Your task to perform on an android device: Search for the best fantasy books on Goodreads. Image 0: 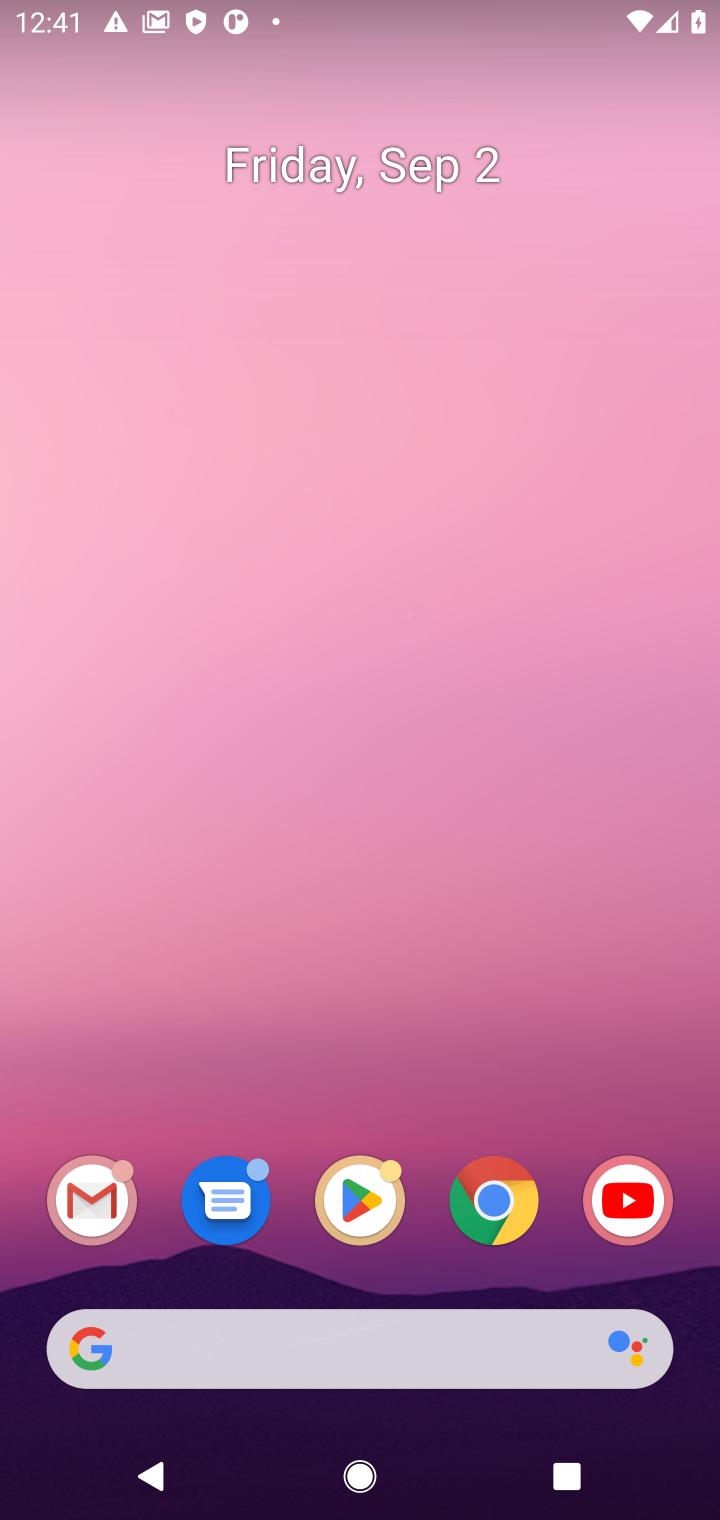
Step 0: click (480, 1201)
Your task to perform on an android device: Search for the best fantasy books on Goodreads. Image 1: 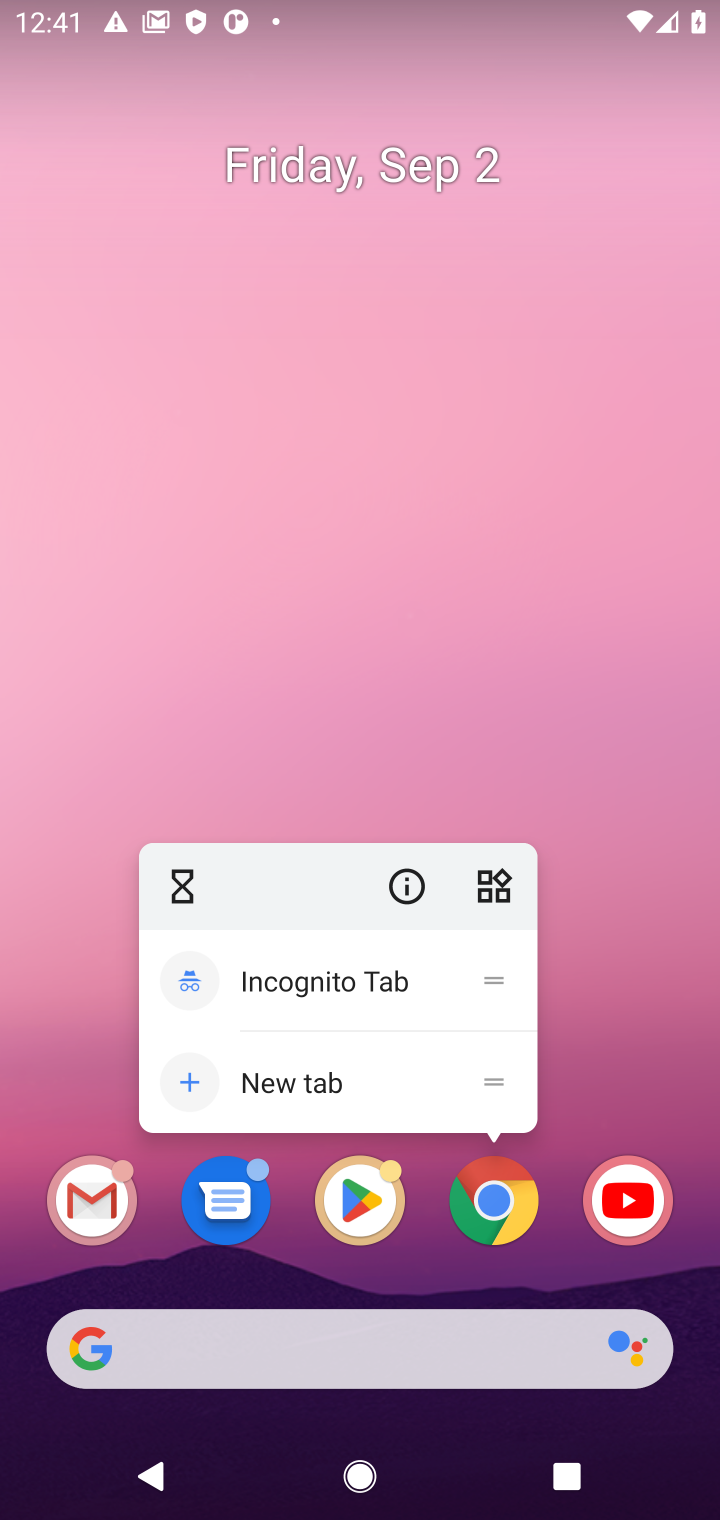
Step 1: click (480, 1201)
Your task to perform on an android device: Search for the best fantasy books on Goodreads. Image 2: 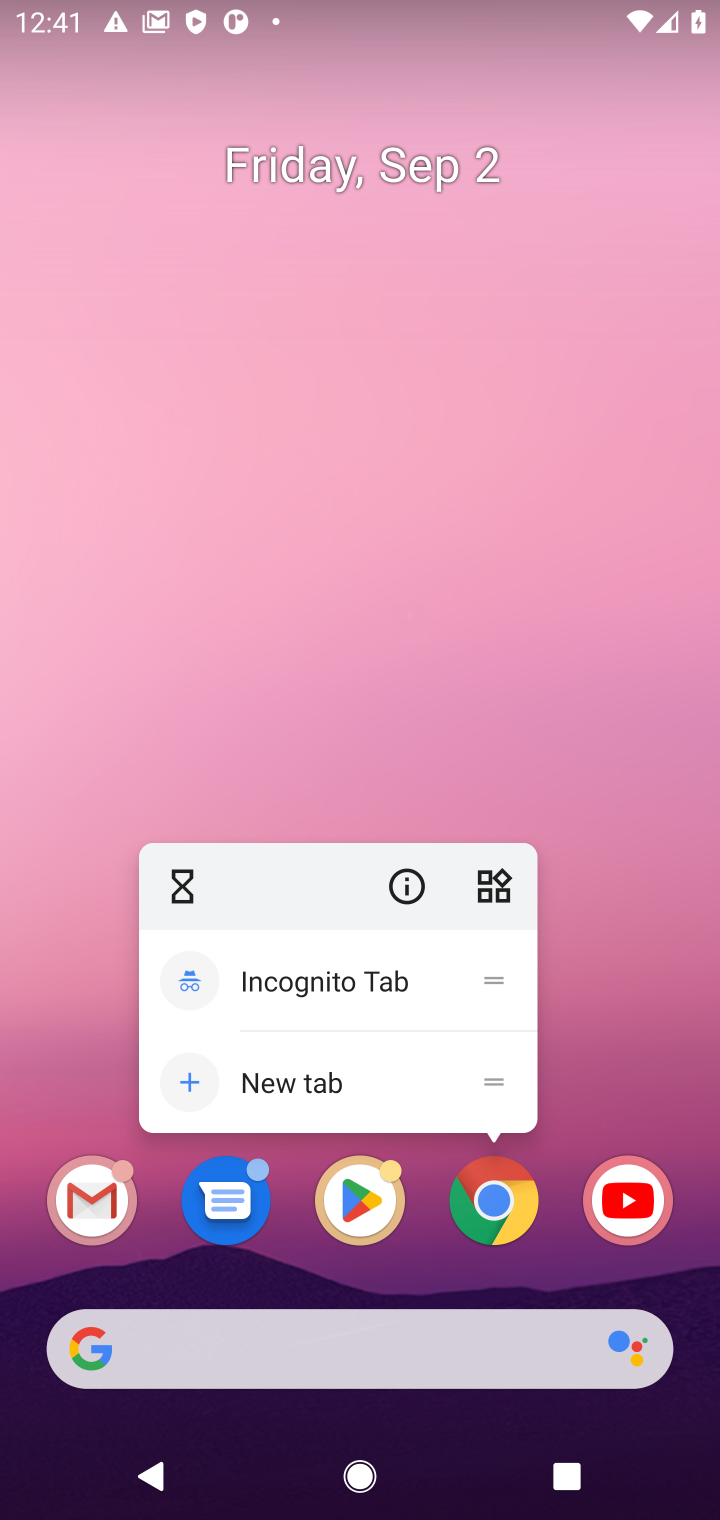
Step 2: click (509, 1206)
Your task to perform on an android device: Search for the best fantasy books on Goodreads. Image 3: 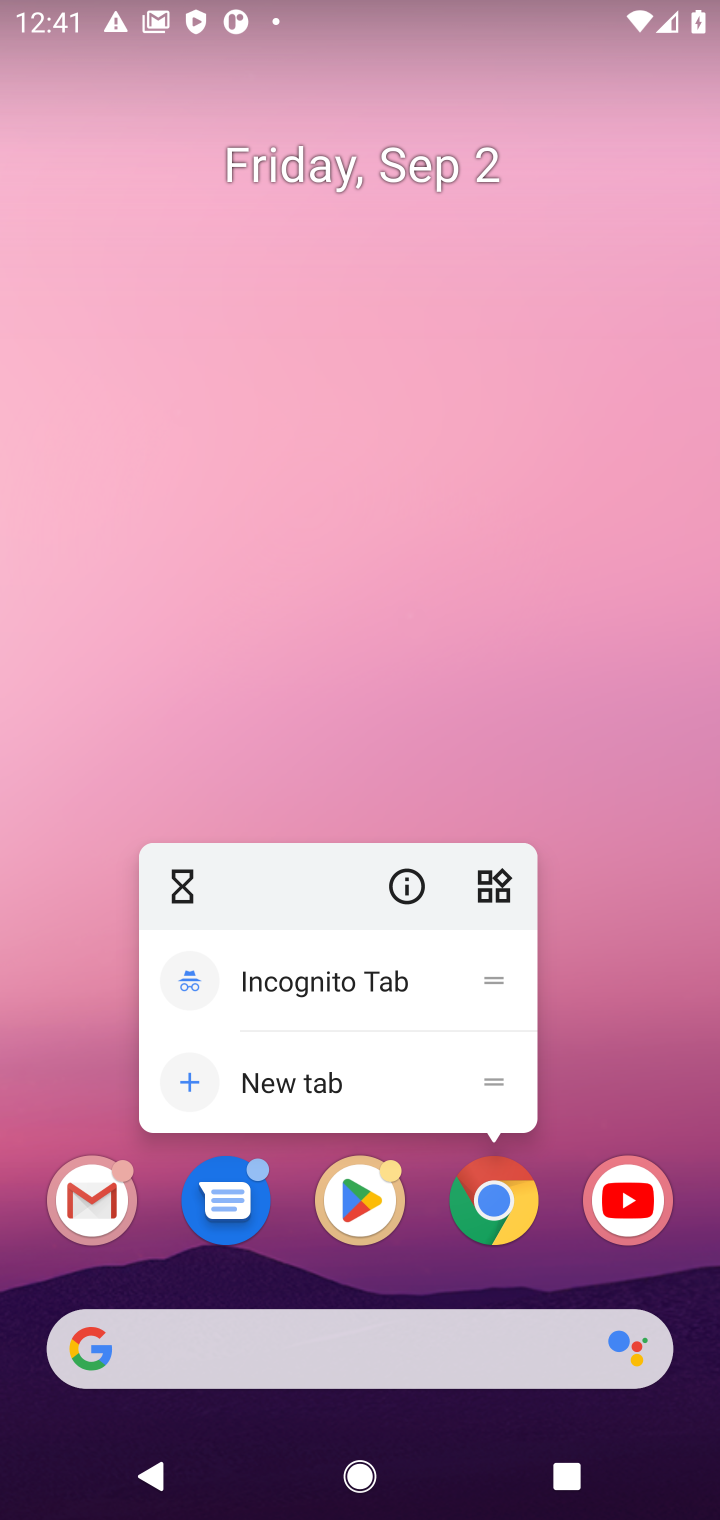
Step 3: click (489, 1196)
Your task to perform on an android device: Search for the best fantasy books on Goodreads. Image 4: 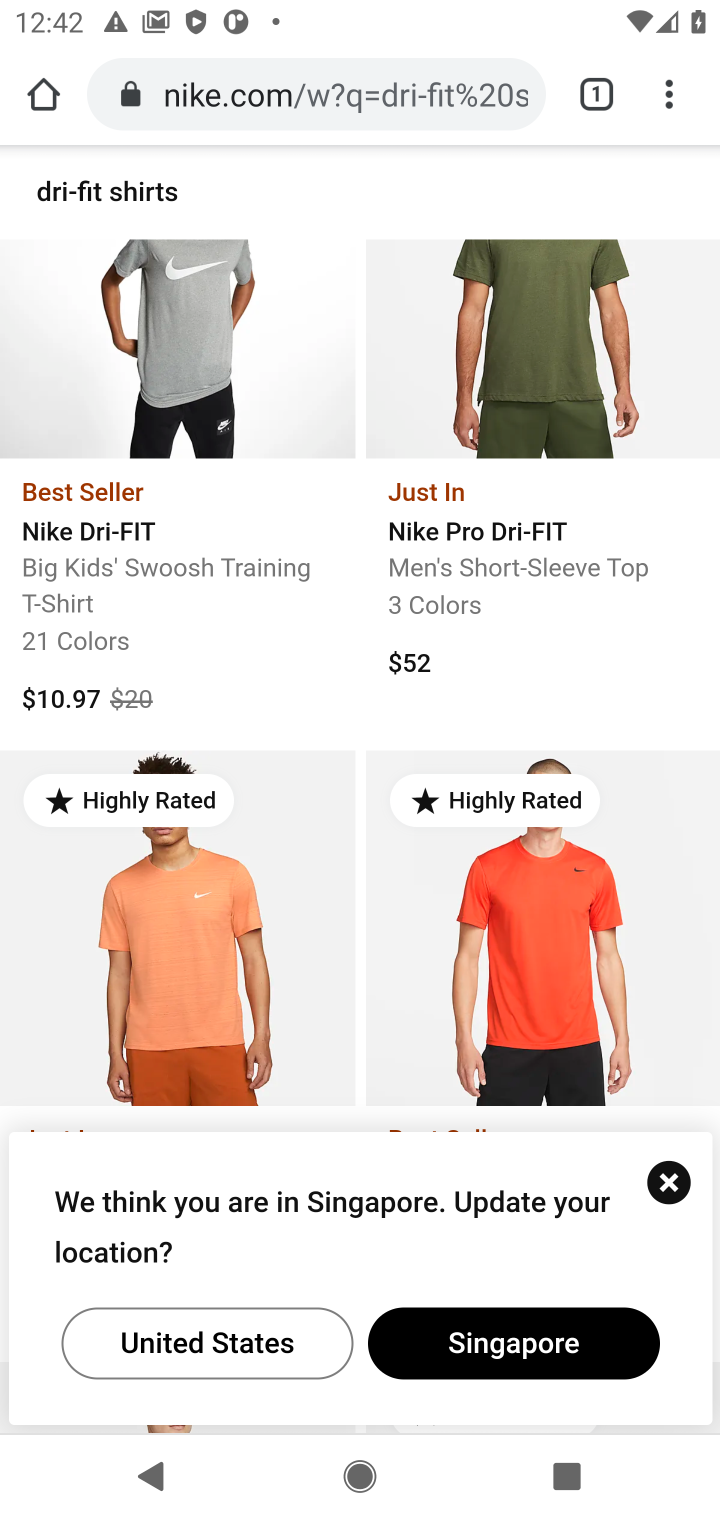
Step 4: click (440, 86)
Your task to perform on an android device: Search for the best fantasy books on Goodreads. Image 5: 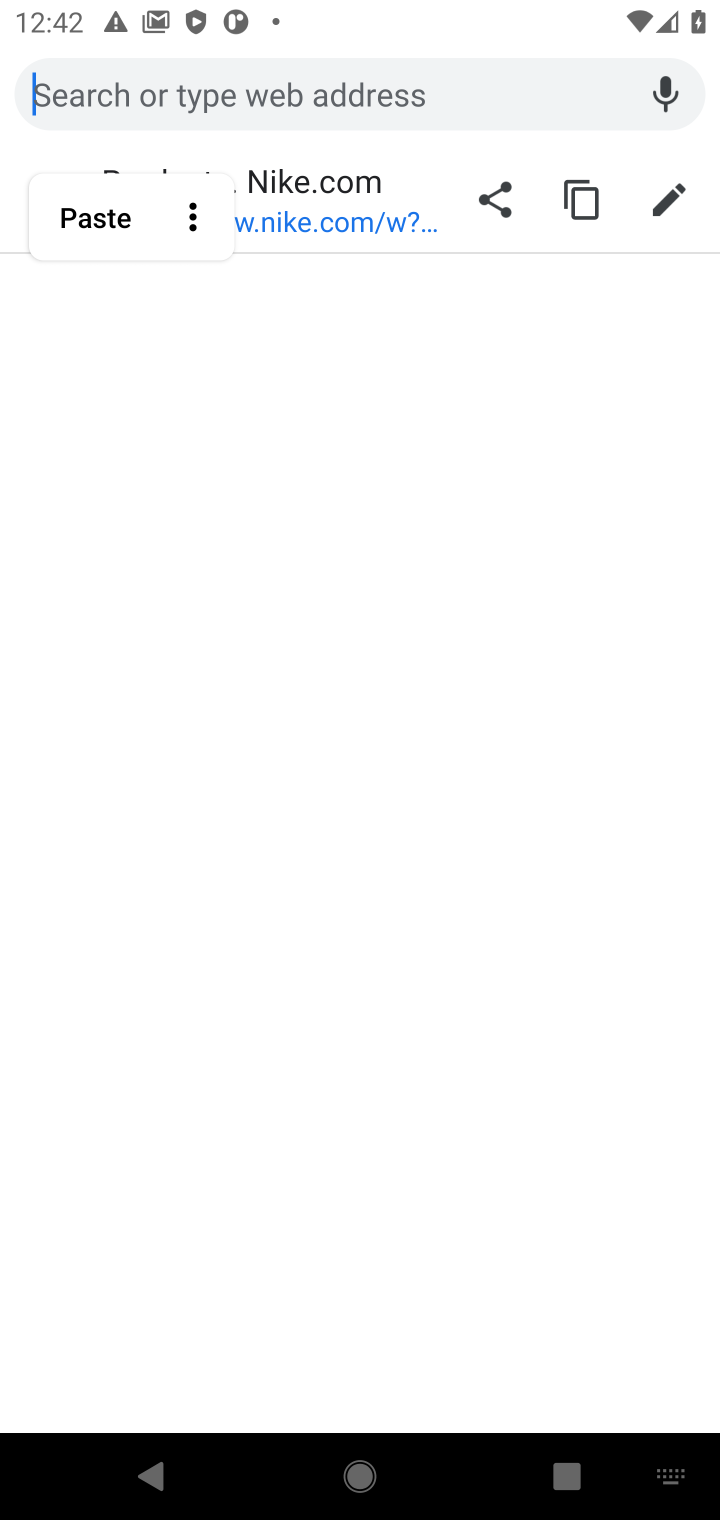
Step 5: type "Goodreads"
Your task to perform on an android device: Search for the best fantasy books on Goodreads. Image 6: 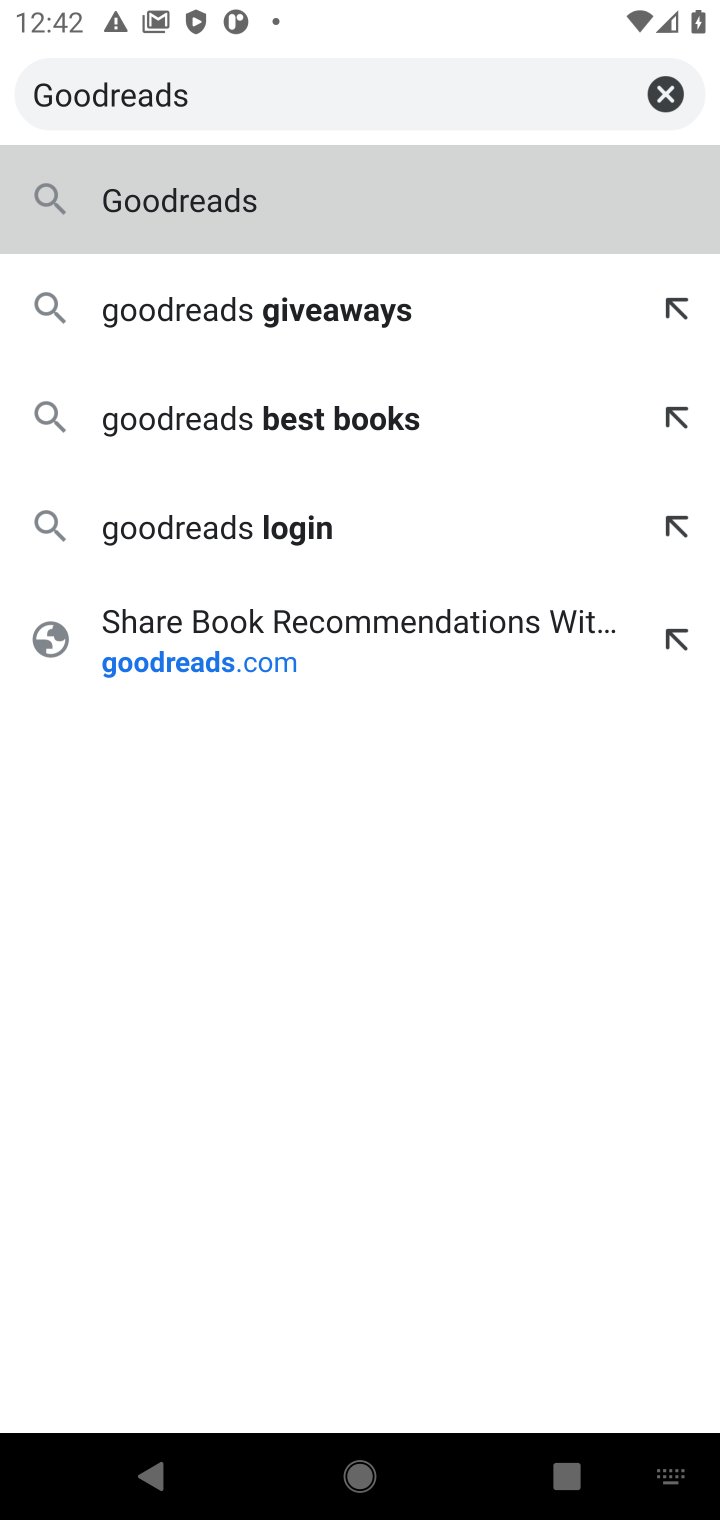
Step 6: press enter
Your task to perform on an android device: Search for the best fantasy books on Goodreads. Image 7: 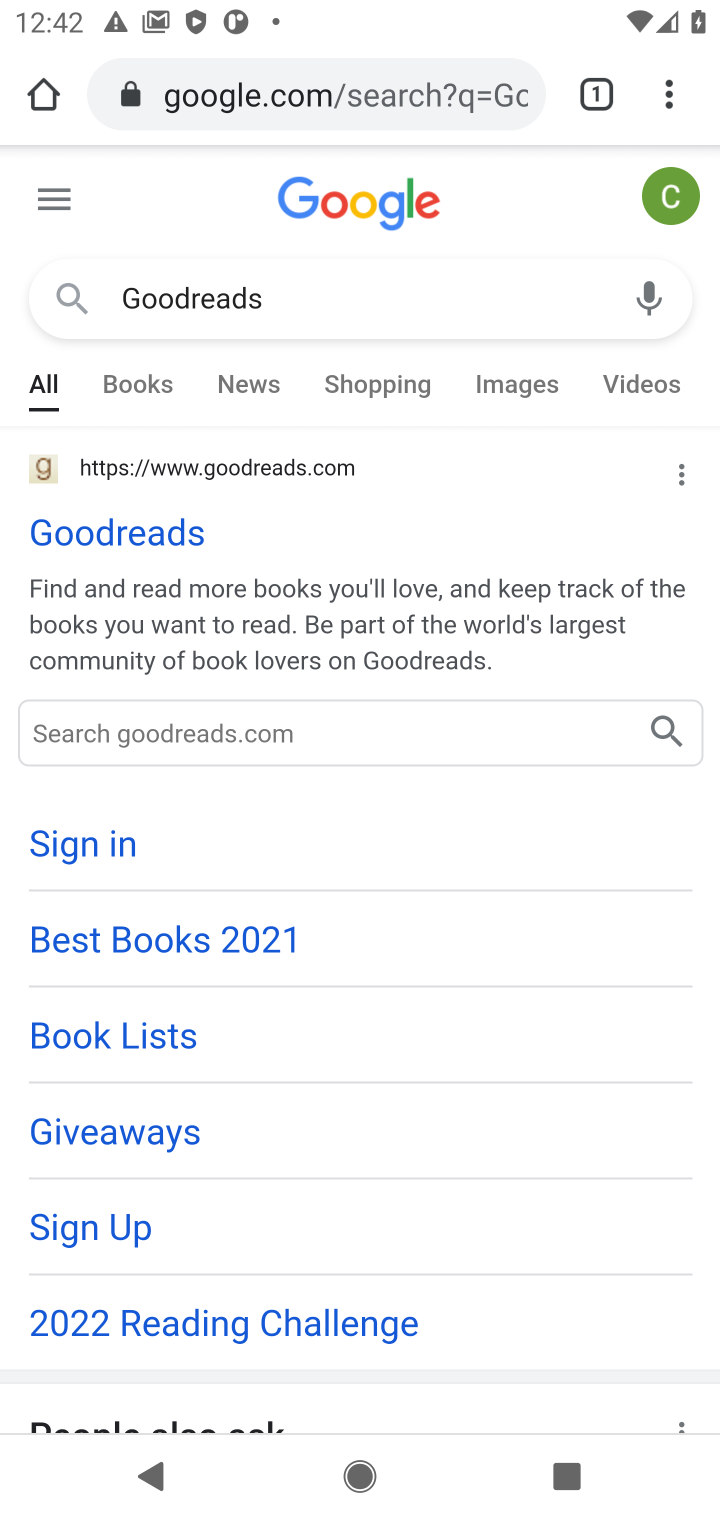
Step 7: click (146, 528)
Your task to perform on an android device: Search for the best fantasy books on Goodreads. Image 8: 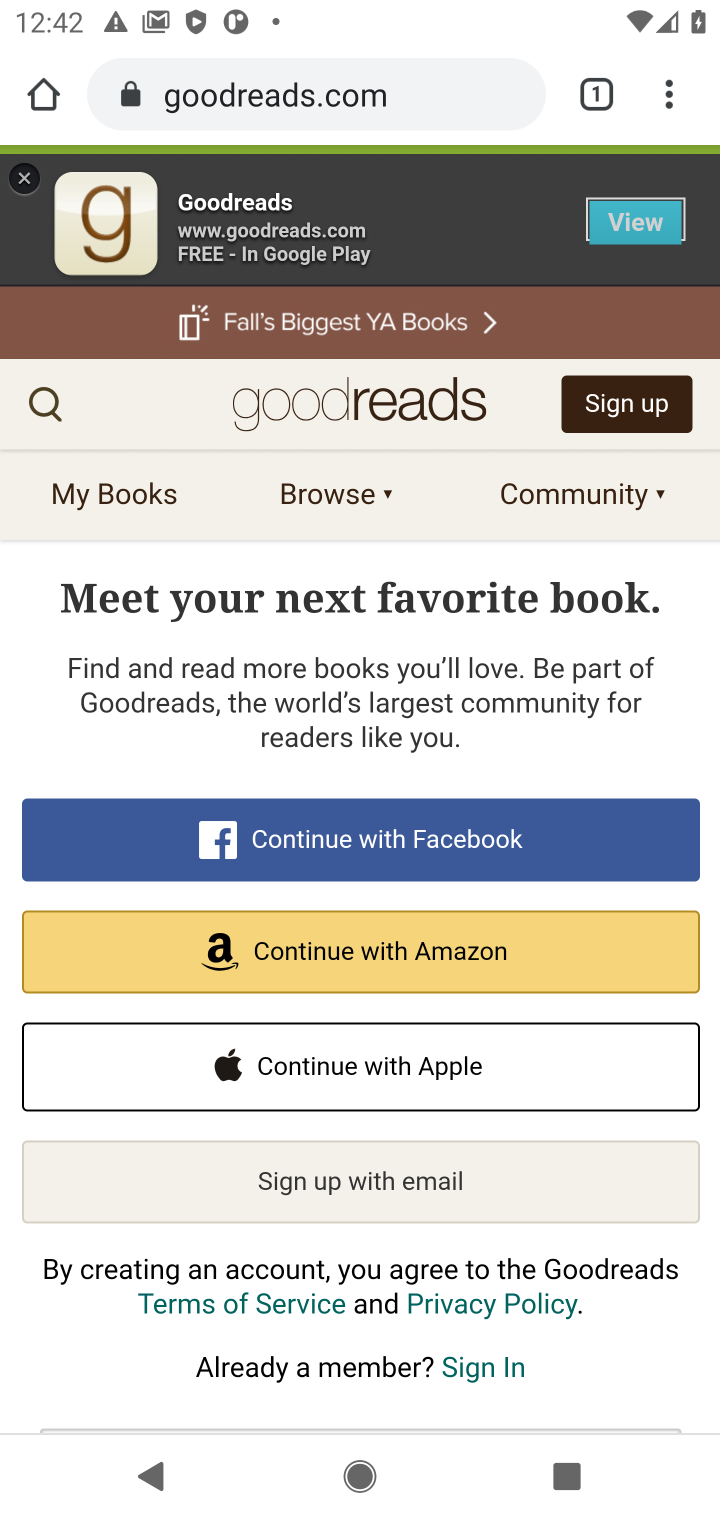
Step 8: click (52, 406)
Your task to perform on an android device: Search for the best fantasy books on Goodreads. Image 9: 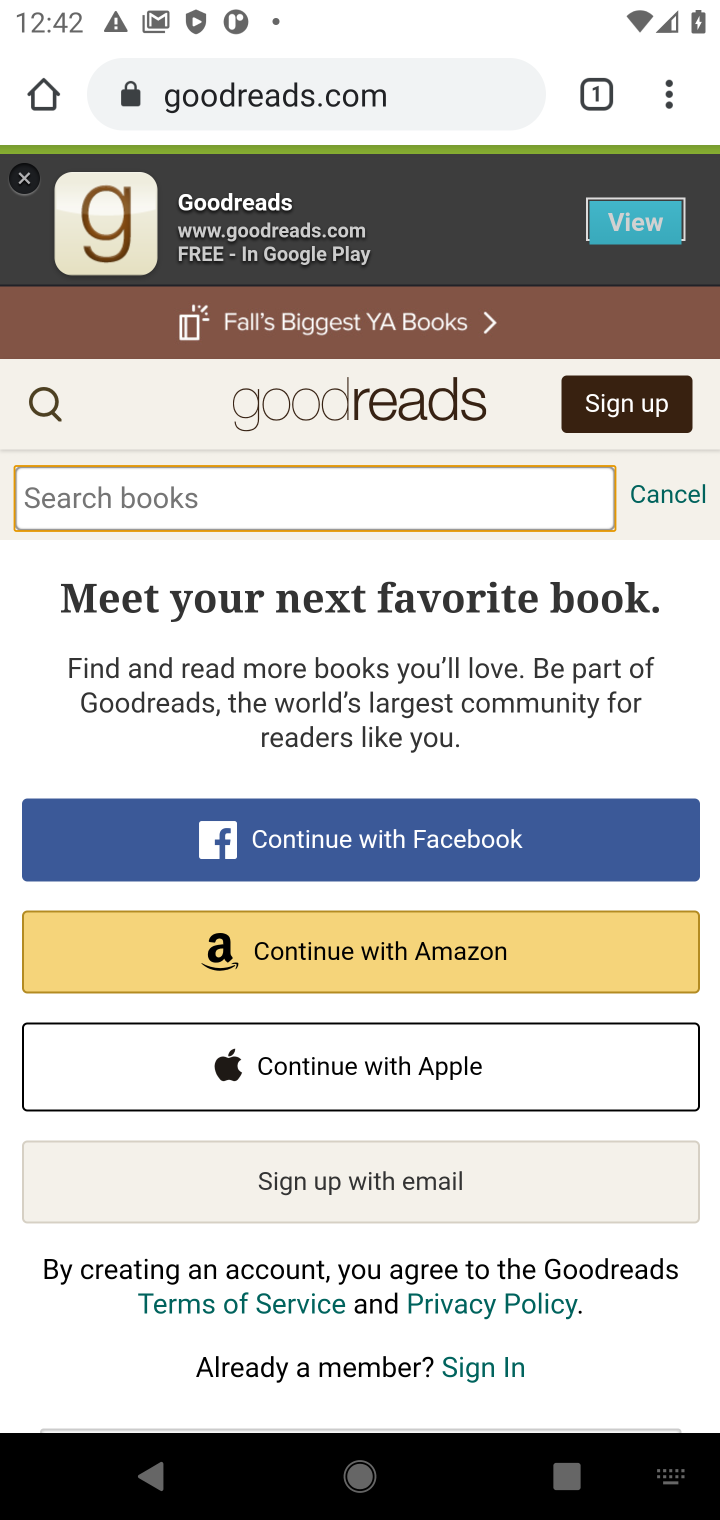
Step 9: press enter
Your task to perform on an android device: Search for the best fantasy books on Goodreads. Image 10: 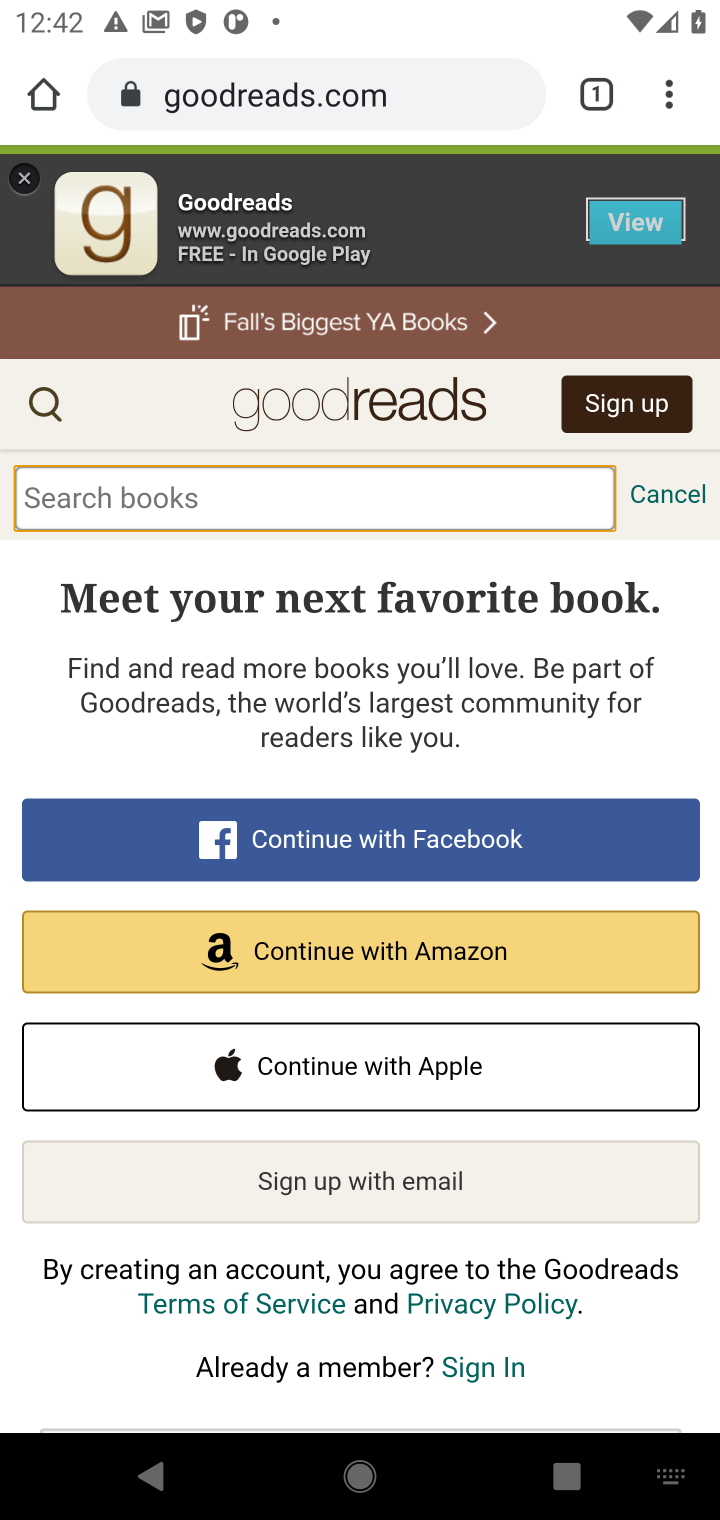
Step 10: type "best fantasy books"
Your task to perform on an android device: Search for the best fantasy books on Goodreads. Image 11: 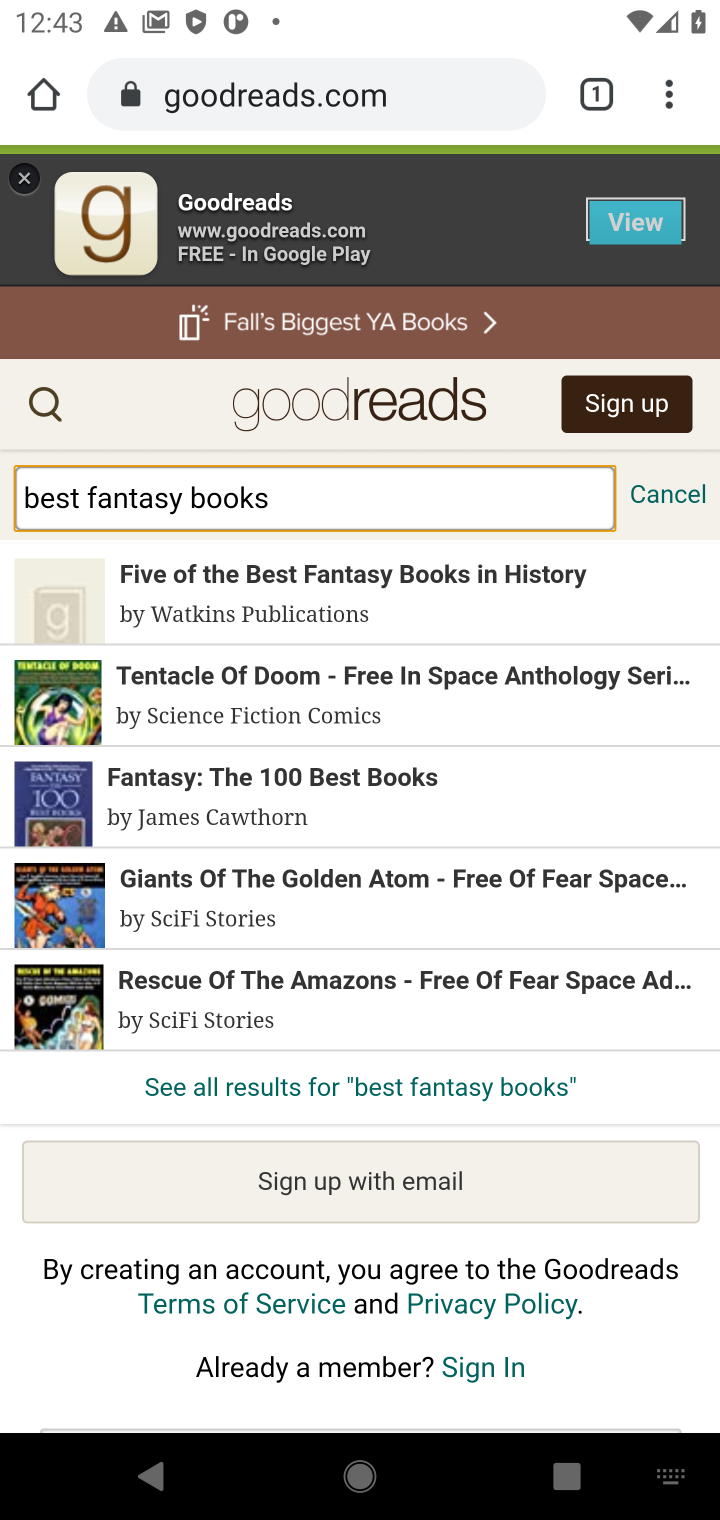
Step 11: drag from (363, 914) to (548, 520)
Your task to perform on an android device: Search for the best fantasy books on Goodreads. Image 12: 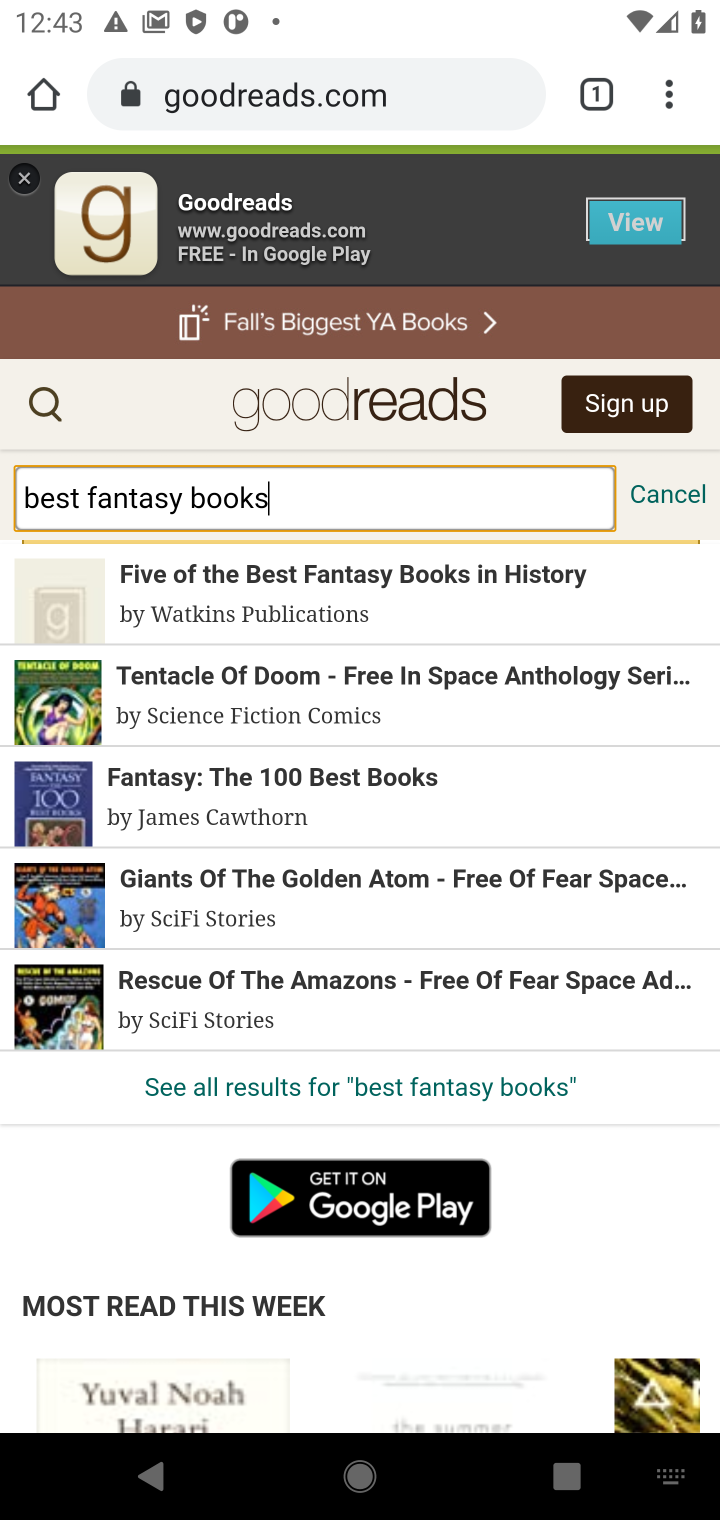
Step 12: drag from (515, 853) to (609, 538)
Your task to perform on an android device: Search for the best fantasy books on Goodreads. Image 13: 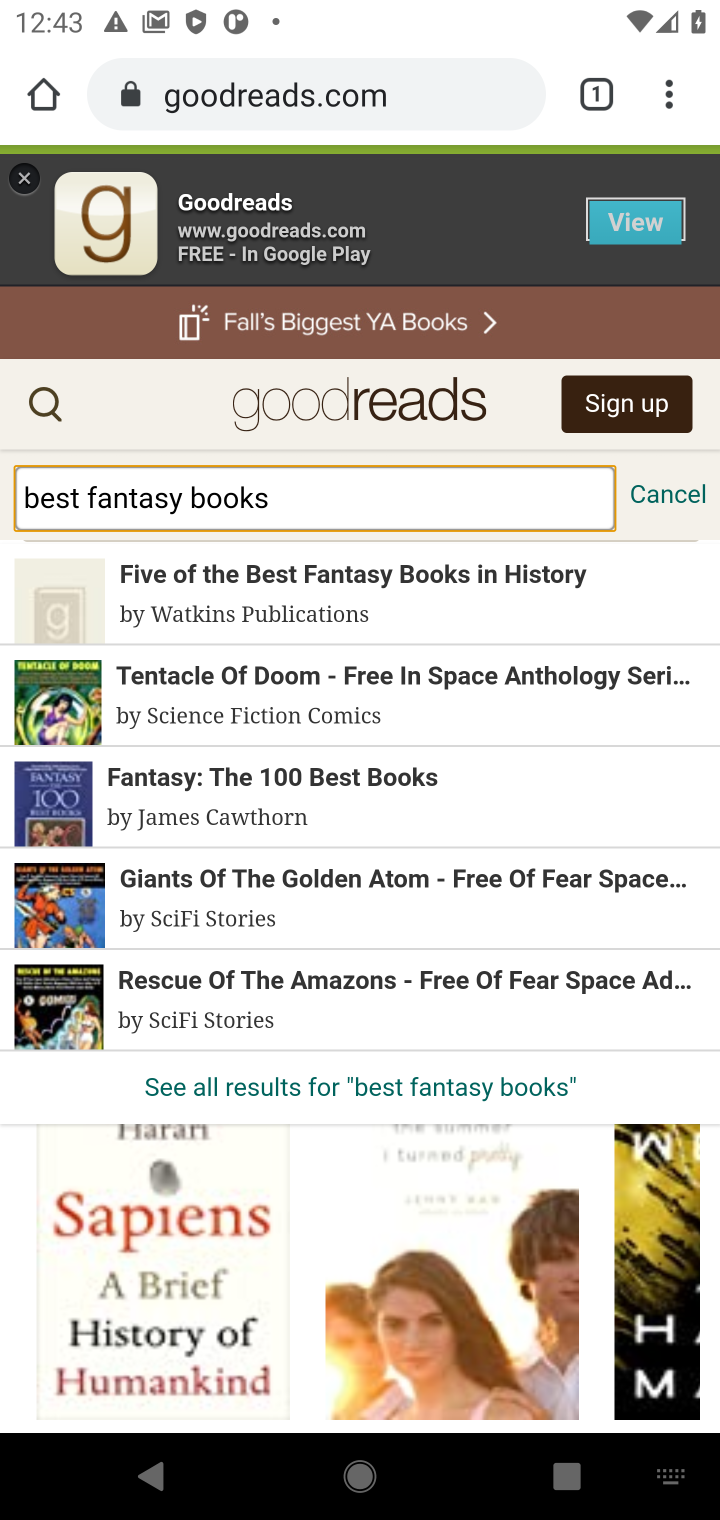
Step 13: click (386, 1083)
Your task to perform on an android device: Search for the best fantasy books on Goodreads. Image 14: 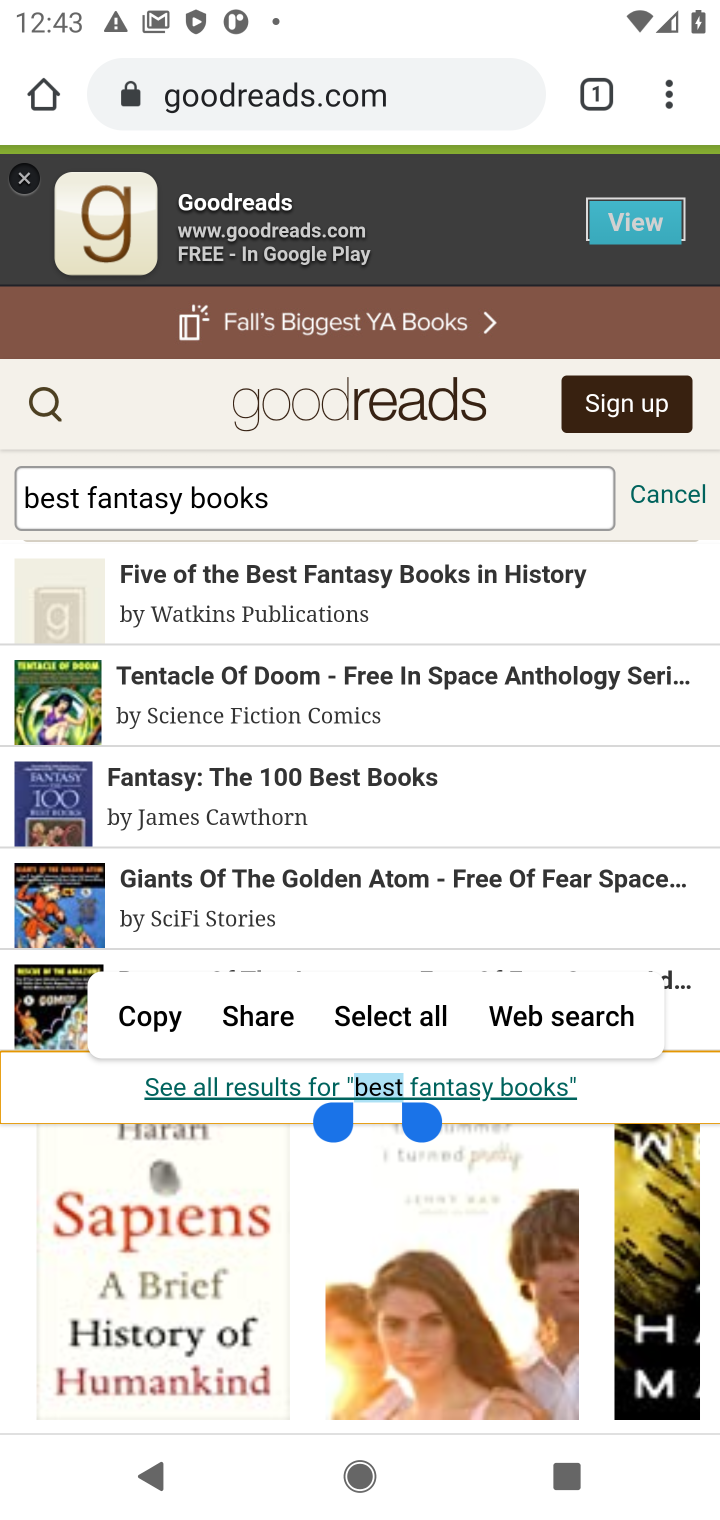
Step 14: click (260, 1076)
Your task to perform on an android device: Search for the best fantasy books on Goodreads. Image 15: 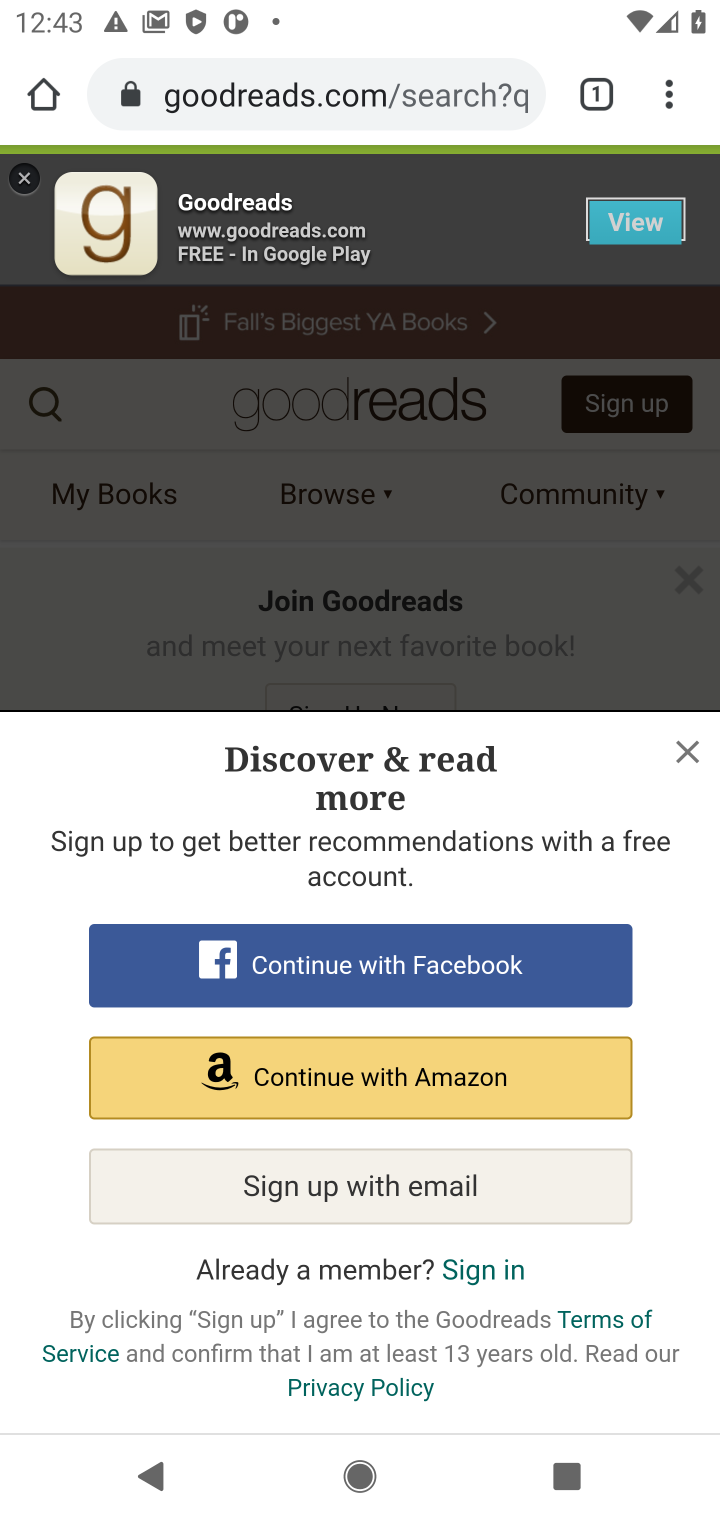
Step 15: click (698, 756)
Your task to perform on an android device: Search for the best fantasy books on Goodreads. Image 16: 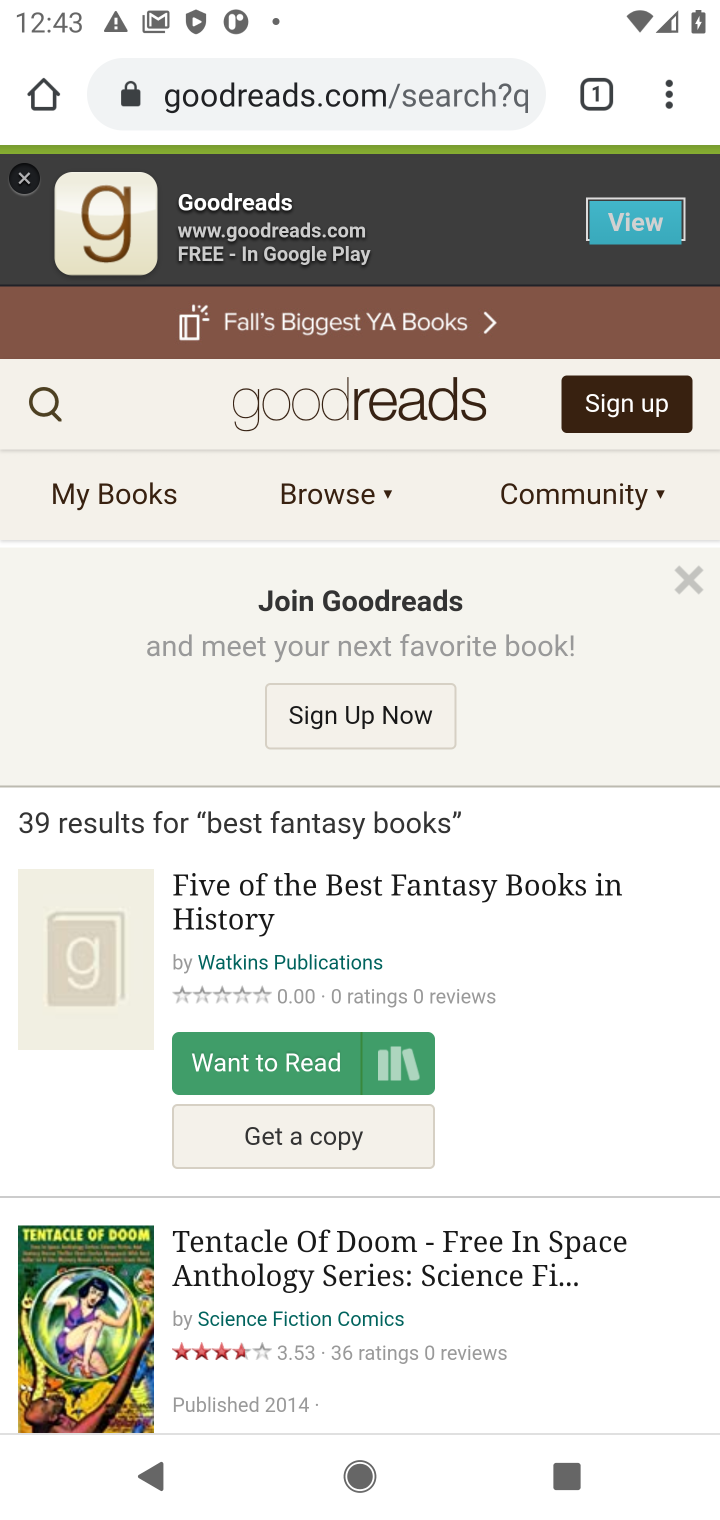
Step 16: task complete